Your task to perform on an android device: Open the stopwatch Image 0: 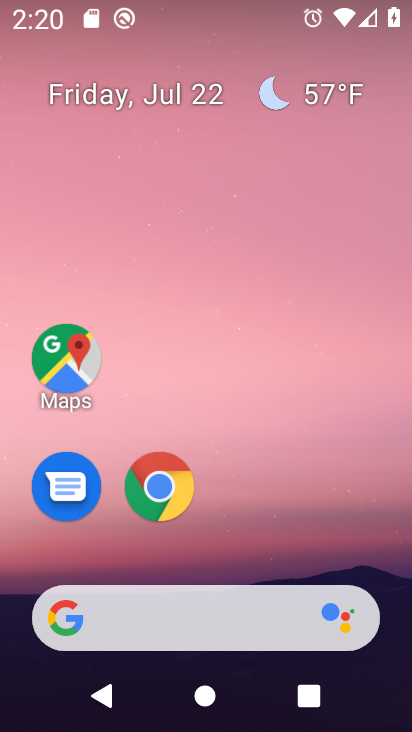
Step 0: press home button
Your task to perform on an android device: Open the stopwatch Image 1: 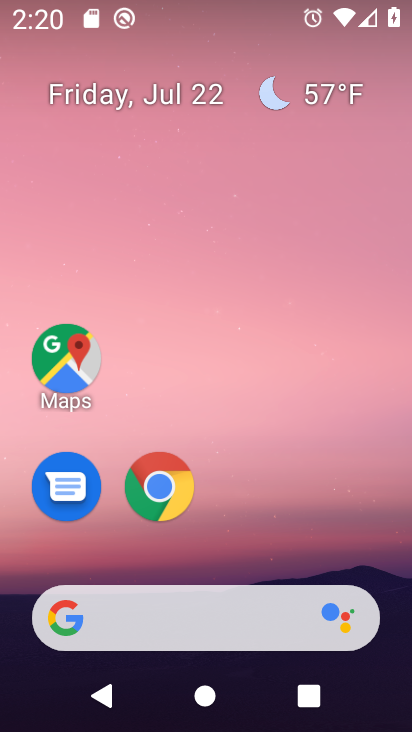
Step 1: drag from (321, 516) to (366, 97)
Your task to perform on an android device: Open the stopwatch Image 2: 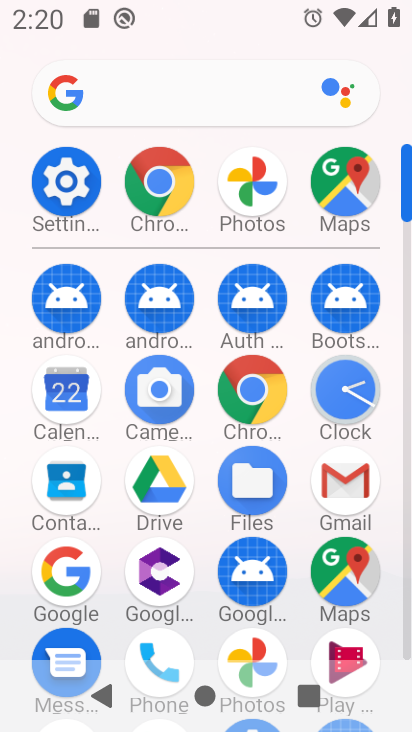
Step 2: click (356, 396)
Your task to perform on an android device: Open the stopwatch Image 3: 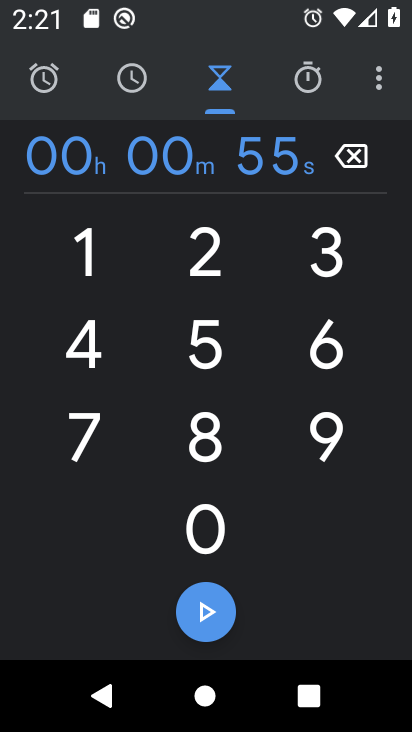
Step 3: click (307, 88)
Your task to perform on an android device: Open the stopwatch Image 4: 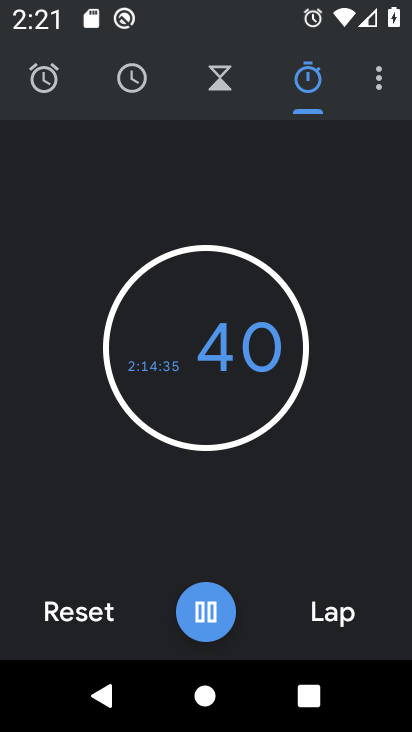
Step 4: task complete